Your task to perform on an android device: Open Google Chrome and open the bookmarks view Image 0: 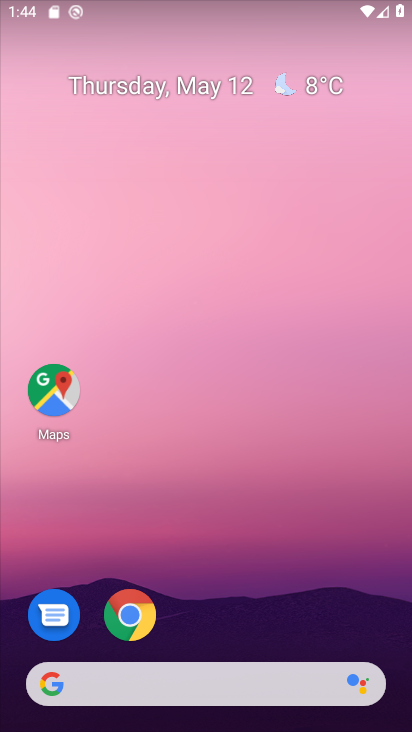
Step 0: click (120, 647)
Your task to perform on an android device: Open Google Chrome and open the bookmarks view Image 1: 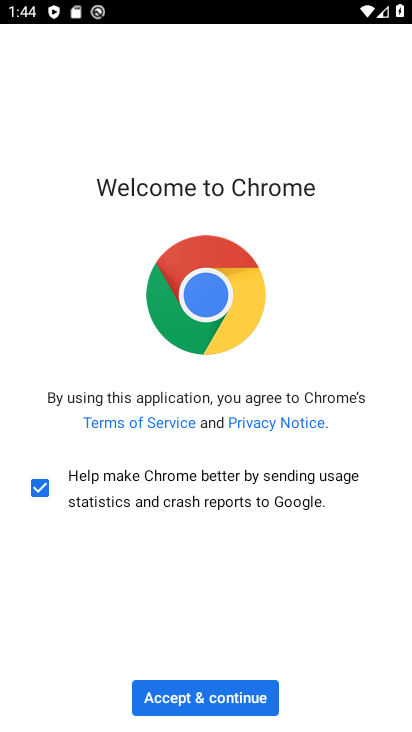
Step 1: click (232, 700)
Your task to perform on an android device: Open Google Chrome and open the bookmarks view Image 2: 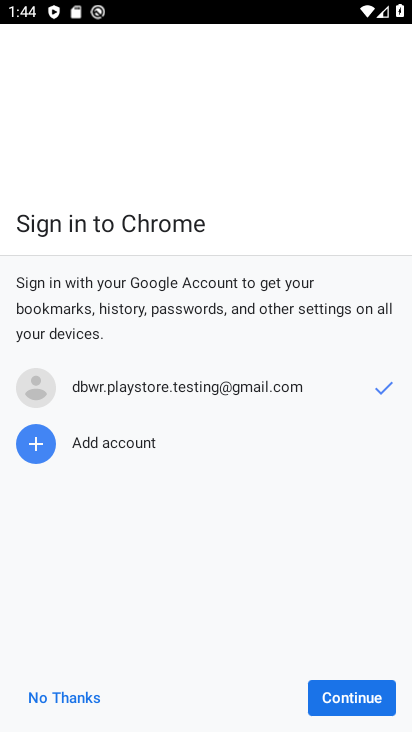
Step 2: click (369, 700)
Your task to perform on an android device: Open Google Chrome and open the bookmarks view Image 3: 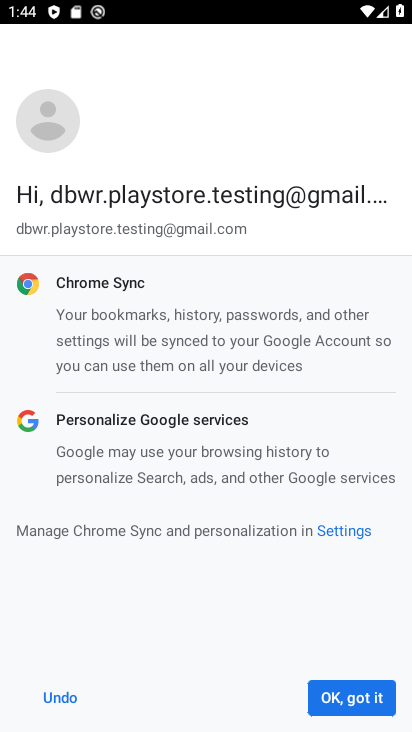
Step 3: click (369, 700)
Your task to perform on an android device: Open Google Chrome and open the bookmarks view Image 4: 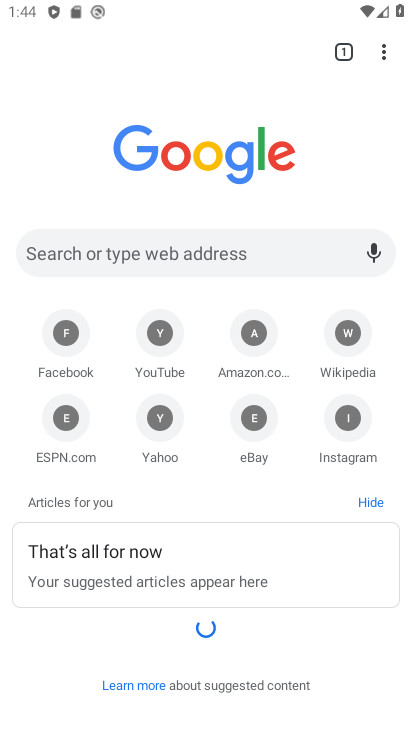
Step 4: click (380, 55)
Your task to perform on an android device: Open Google Chrome and open the bookmarks view Image 5: 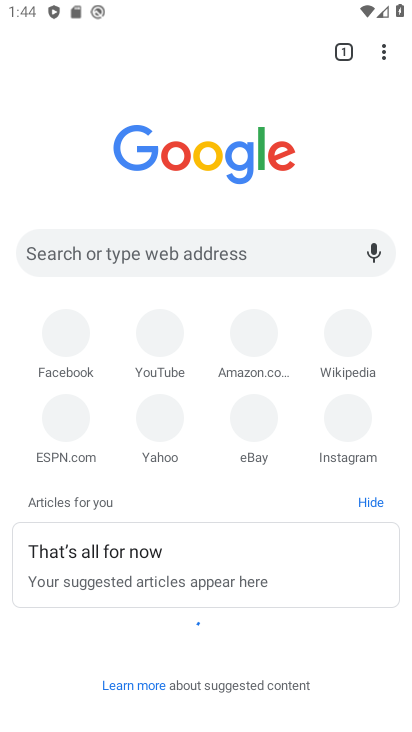
Step 5: task complete